Your task to perform on an android device: Open calendar and show me the second week of next month Image 0: 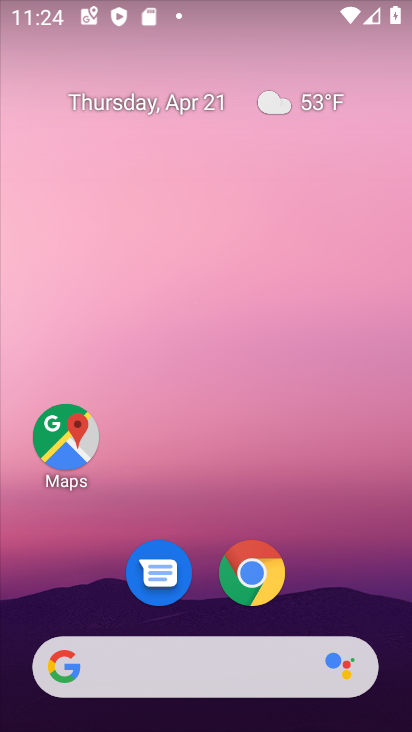
Step 0: drag from (348, 558) to (298, 115)
Your task to perform on an android device: Open calendar and show me the second week of next month Image 1: 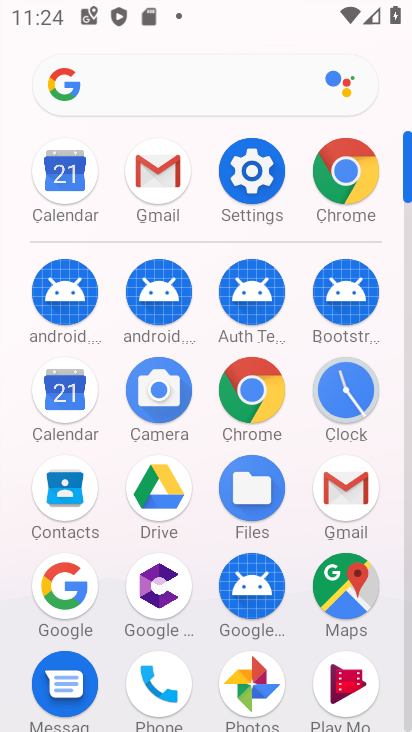
Step 1: click (65, 392)
Your task to perform on an android device: Open calendar and show me the second week of next month Image 2: 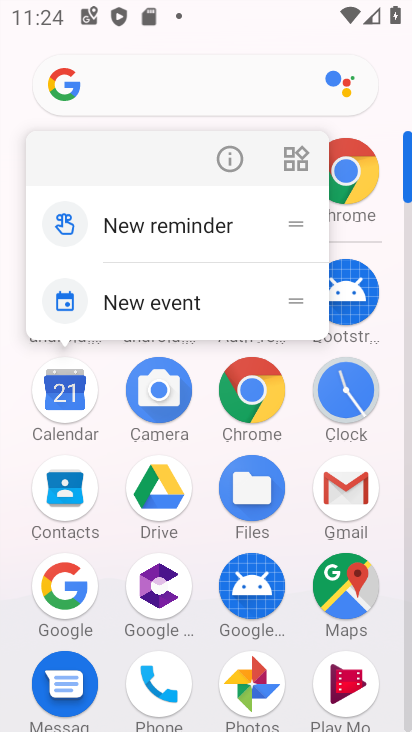
Step 2: click (58, 391)
Your task to perform on an android device: Open calendar and show me the second week of next month Image 3: 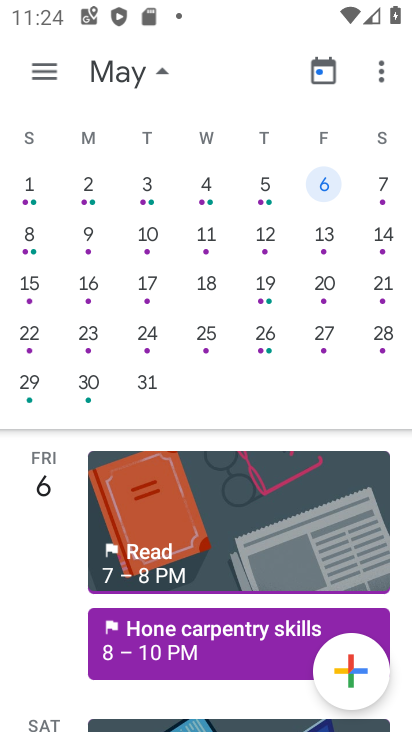
Step 3: click (206, 235)
Your task to perform on an android device: Open calendar and show me the second week of next month Image 4: 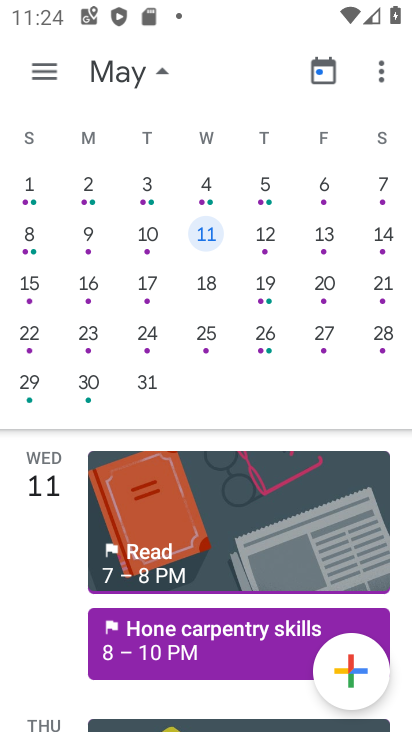
Step 4: task complete